Your task to perform on an android device: clear history in the chrome app Image 0: 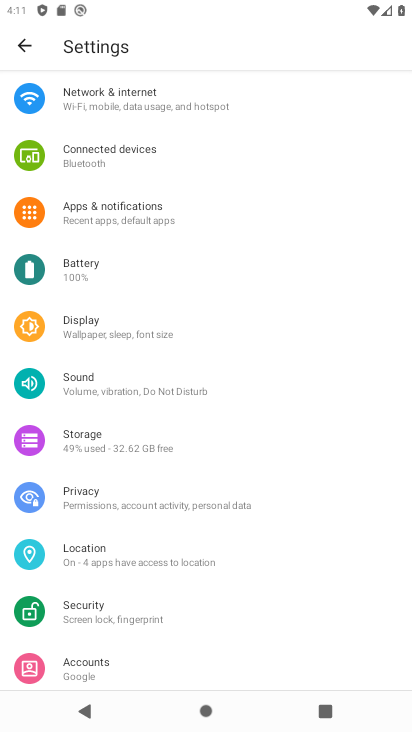
Step 0: press home button
Your task to perform on an android device: clear history in the chrome app Image 1: 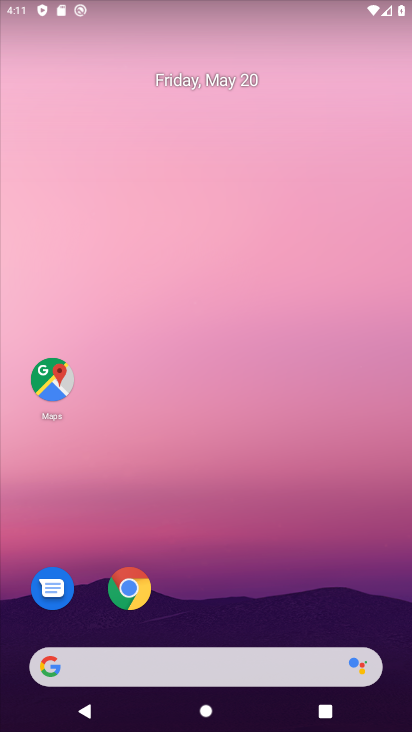
Step 1: drag from (322, 627) to (253, 42)
Your task to perform on an android device: clear history in the chrome app Image 2: 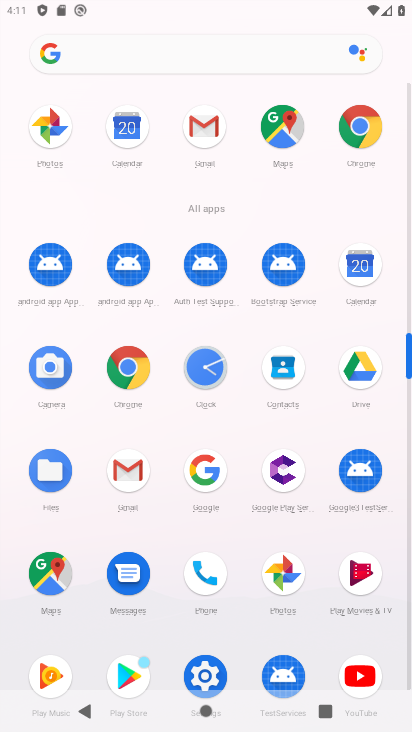
Step 2: click (349, 121)
Your task to perform on an android device: clear history in the chrome app Image 3: 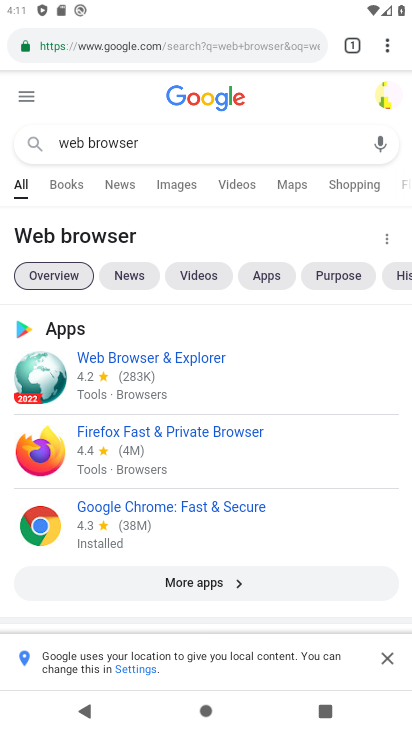
Step 3: drag from (385, 44) to (212, 262)
Your task to perform on an android device: clear history in the chrome app Image 4: 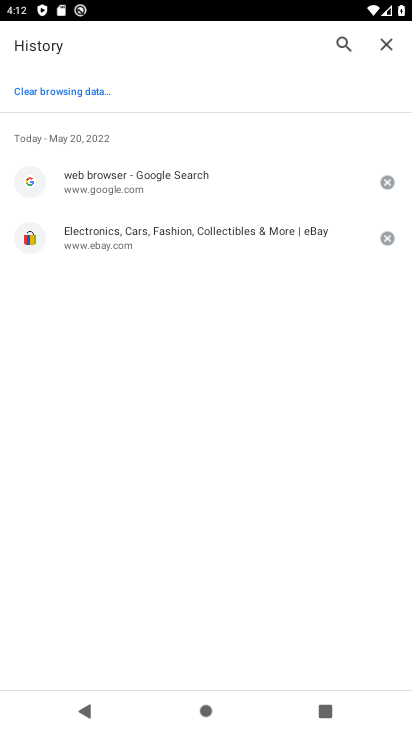
Step 4: click (26, 182)
Your task to perform on an android device: clear history in the chrome app Image 5: 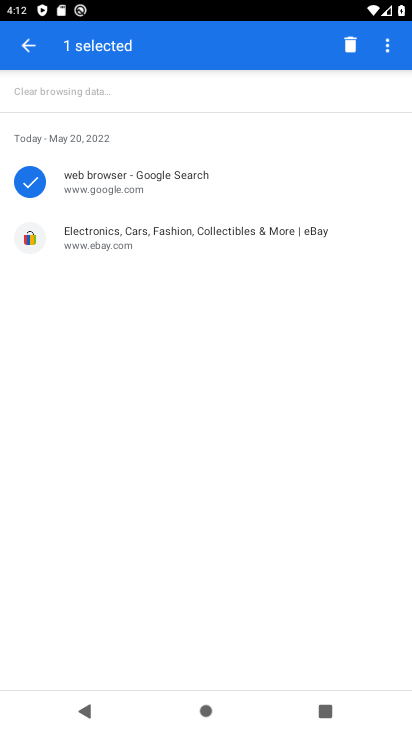
Step 5: click (23, 233)
Your task to perform on an android device: clear history in the chrome app Image 6: 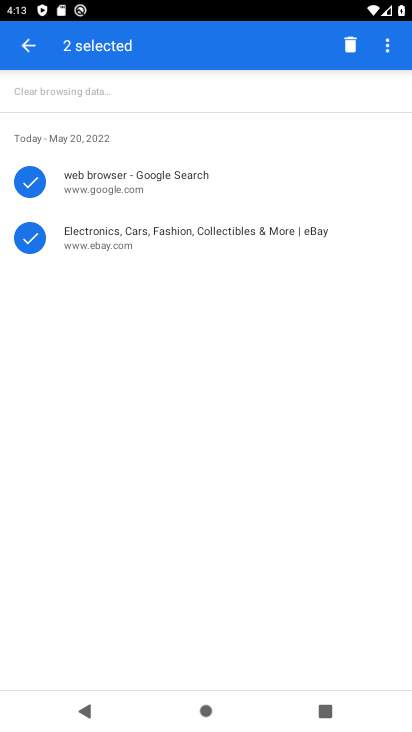
Step 6: click (359, 45)
Your task to perform on an android device: clear history in the chrome app Image 7: 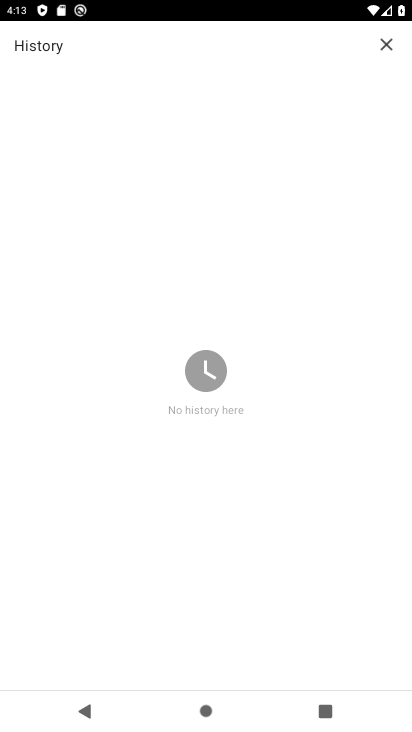
Step 7: task complete